Your task to perform on an android device: set an alarm Image 0: 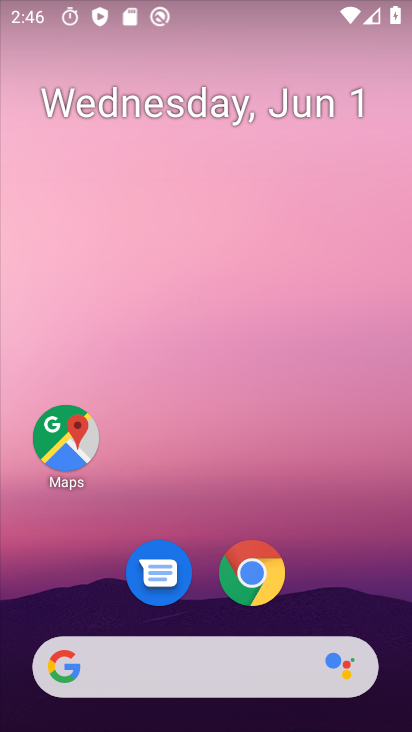
Step 0: drag from (201, 608) to (196, 195)
Your task to perform on an android device: set an alarm Image 1: 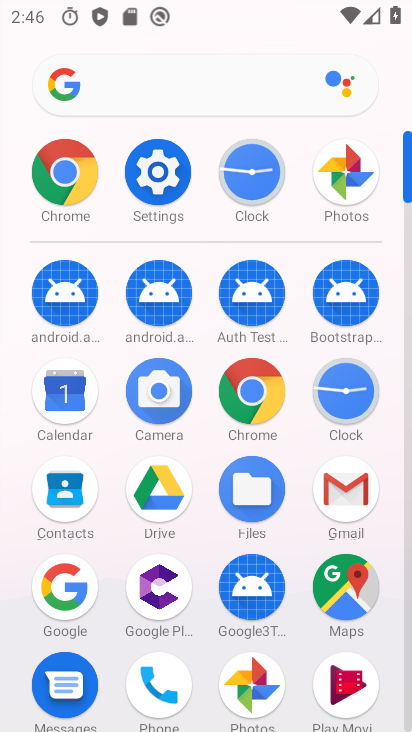
Step 1: click (245, 184)
Your task to perform on an android device: set an alarm Image 2: 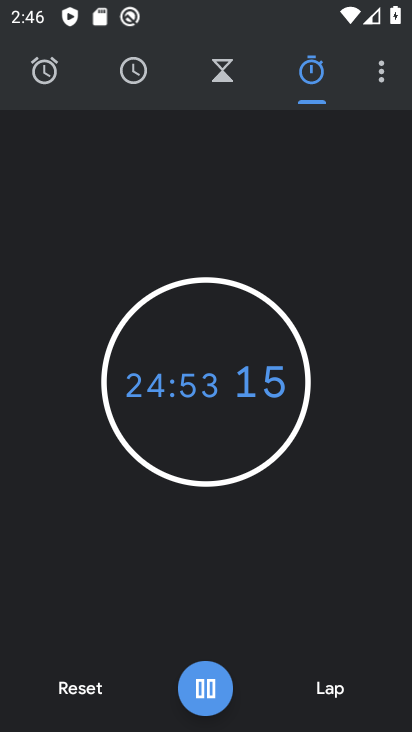
Step 2: click (60, 75)
Your task to perform on an android device: set an alarm Image 3: 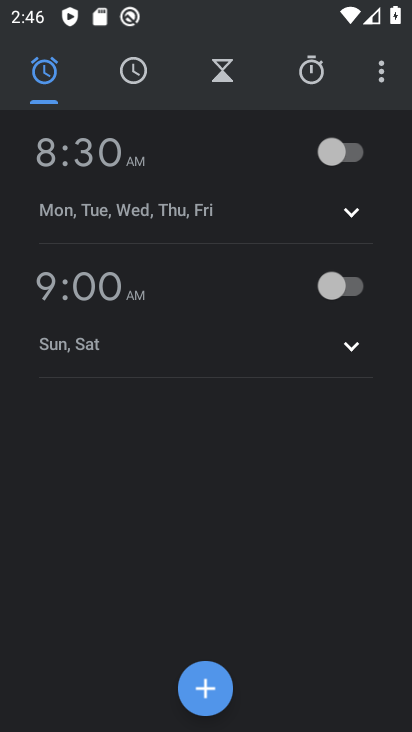
Step 3: click (345, 151)
Your task to perform on an android device: set an alarm Image 4: 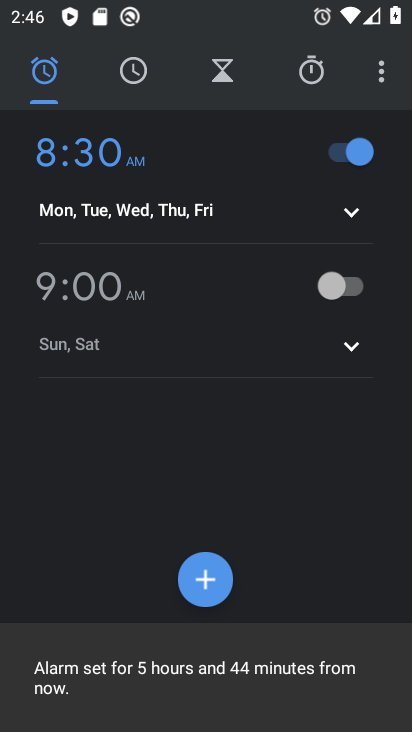
Step 4: task complete